Your task to perform on an android device: What is the recent news? Image 0: 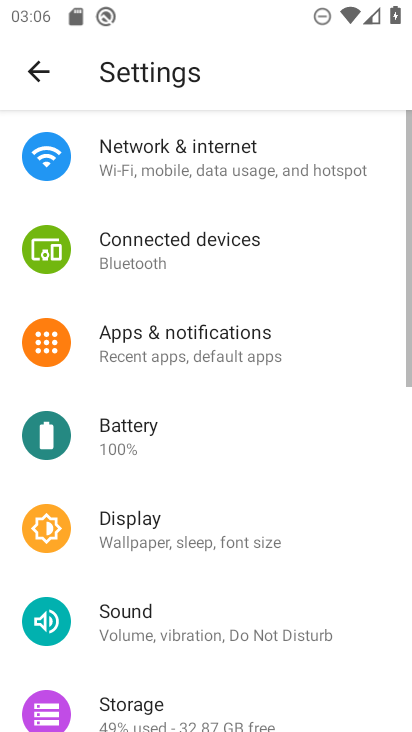
Step 0: press home button
Your task to perform on an android device: What is the recent news? Image 1: 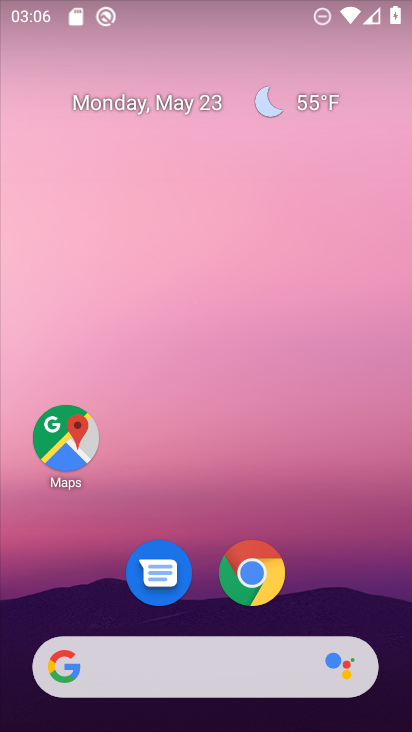
Step 1: click (157, 694)
Your task to perform on an android device: What is the recent news? Image 2: 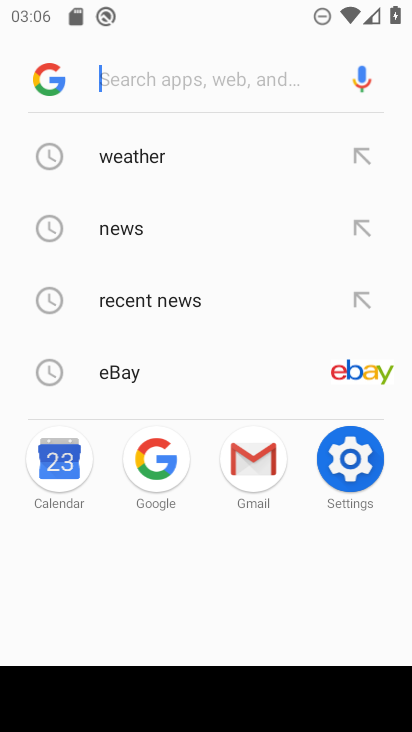
Step 2: click (189, 300)
Your task to perform on an android device: What is the recent news? Image 3: 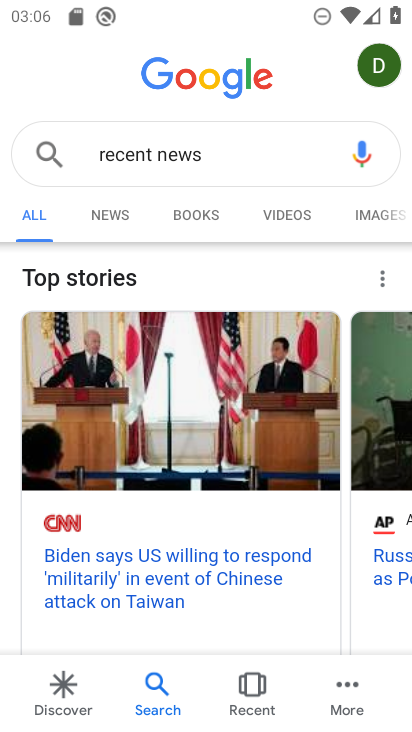
Step 3: click (120, 214)
Your task to perform on an android device: What is the recent news? Image 4: 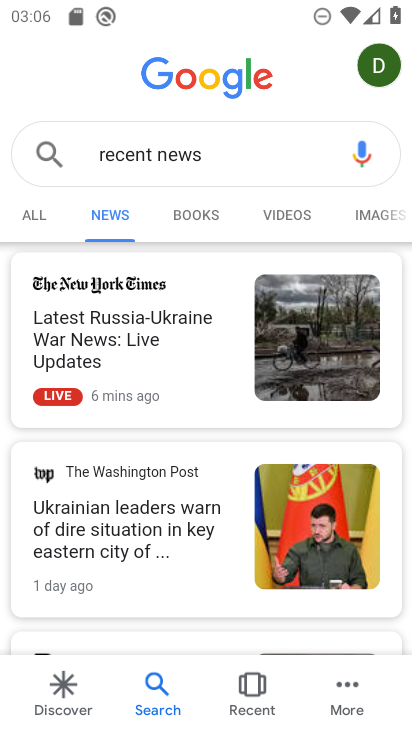
Step 4: task complete